Your task to perform on an android device: snooze an email in the gmail app Image 0: 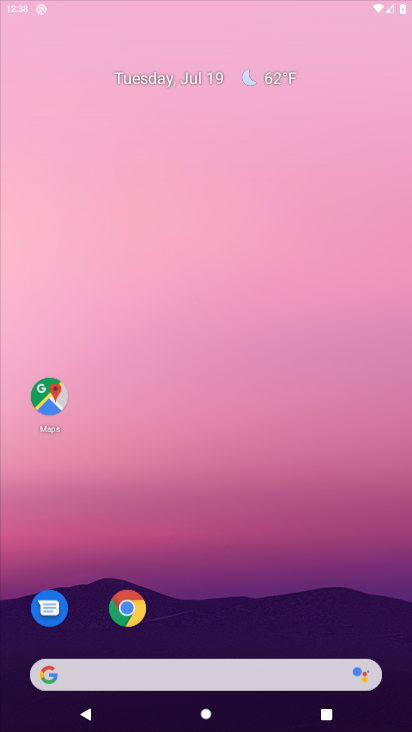
Step 0: press home button
Your task to perform on an android device: snooze an email in the gmail app Image 1: 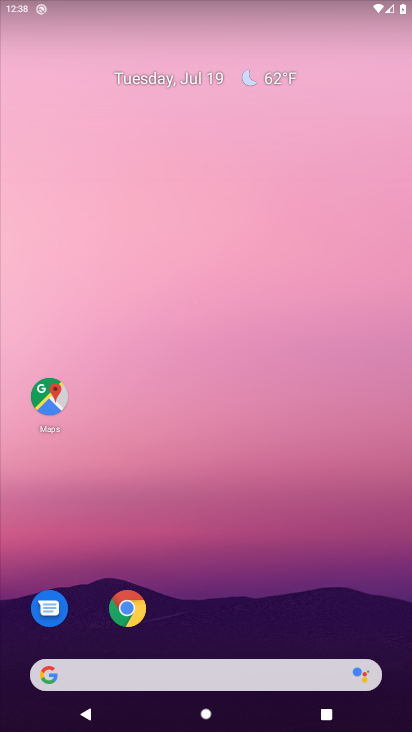
Step 1: drag from (228, 638) to (215, 20)
Your task to perform on an android device: snooze an email in the gmail app Image 2: 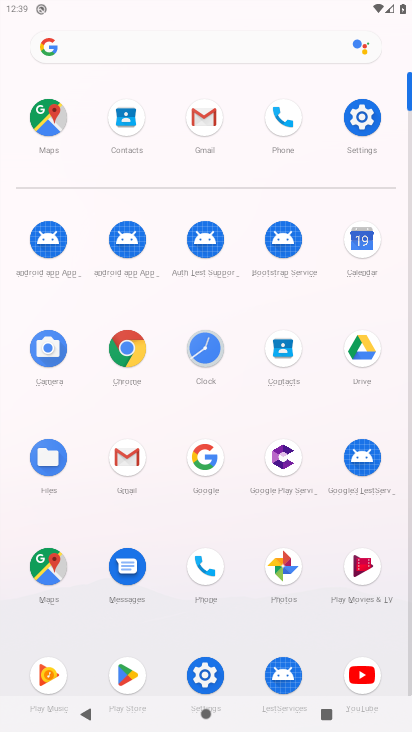
Step 2: click (128, 455)
Your task to perform on an android device: snooze an email in the gmail app Image 3: 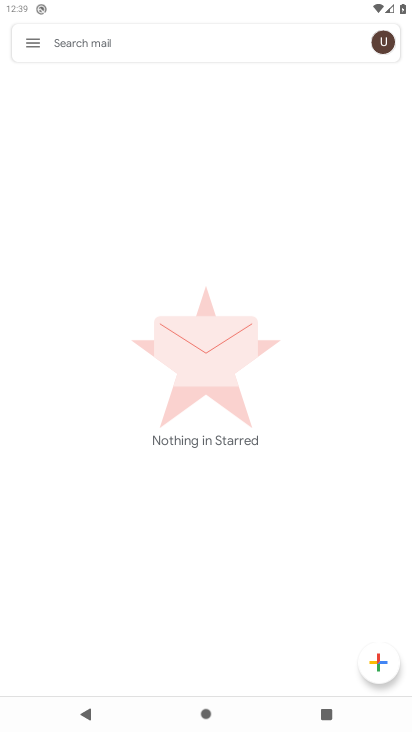
Step 3: click (35, 38)
Your task to perform on an android device: snooze an email in the gmail app Image 4: 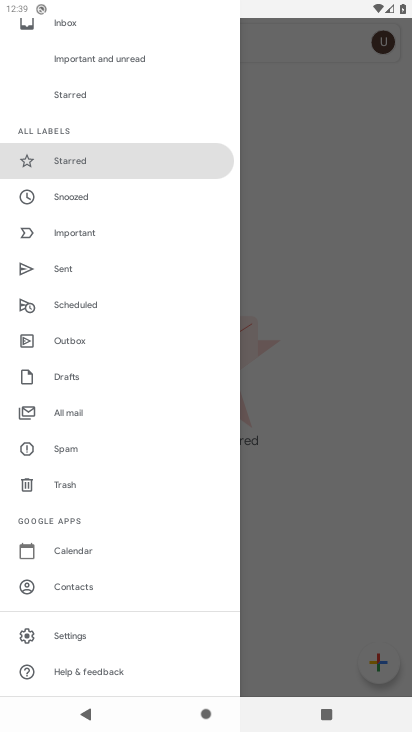
Step 4: click (85, 411)
Your task to perform on an android device: snooze an email in the gmail app Image 5: 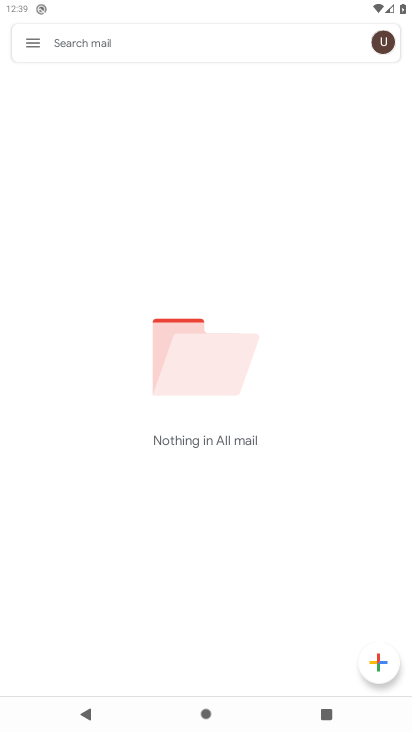
Step 5: task complete